Your task to perform on an android device: Open ESPN.com Image 0: 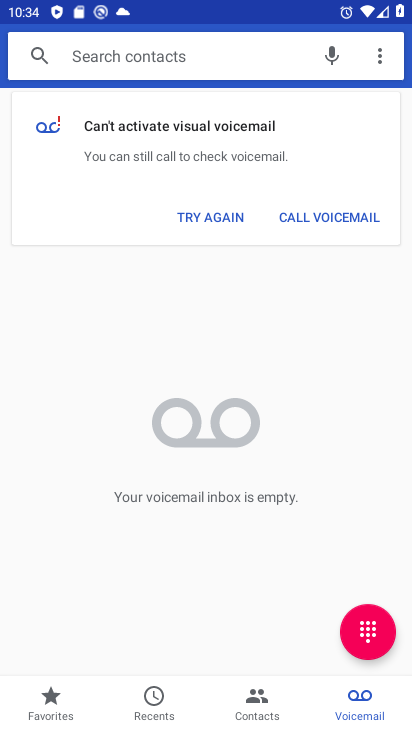
Step 0: press home button
Your task to perform on an android device: Open ESPN.com Image 1: 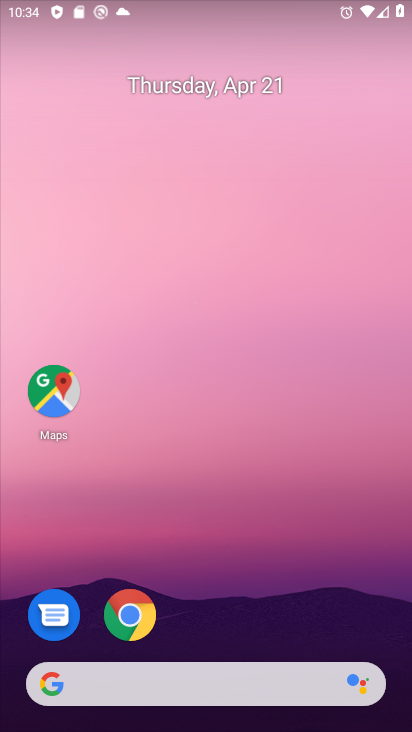
Step 1: drag from (4, 280) to (400, 299)
Your task to perform on an android device: Open ESPN.com Image 2: 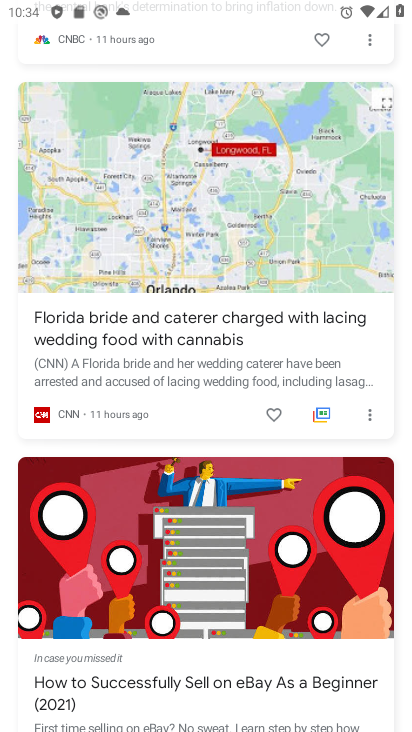
Step 2: press back button
Your task to perform on an android device: Open ESPN.com Image 3: 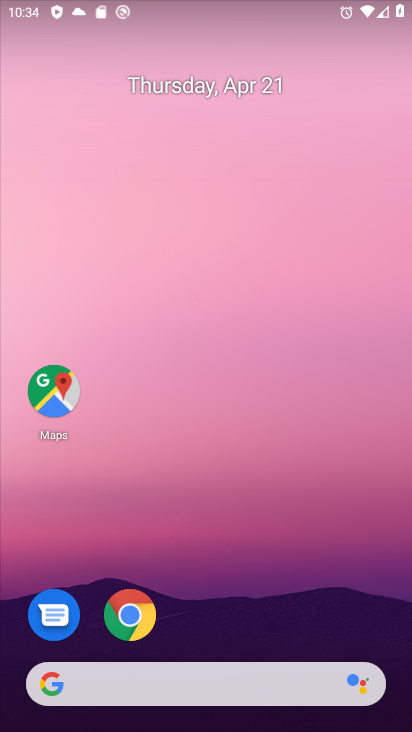
Step 3: click (130, 607)
Your task to perform on an android device: Open ESPN.com Image 4: 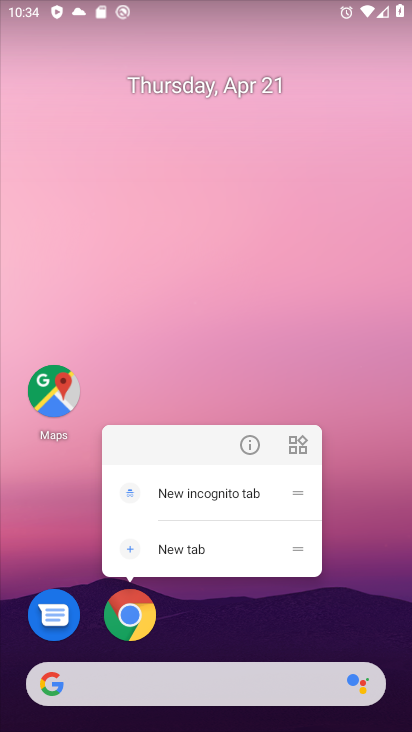
Step 4: click (214, 613)
Your task to perform on an android device: Open ESPN.com Image 5: 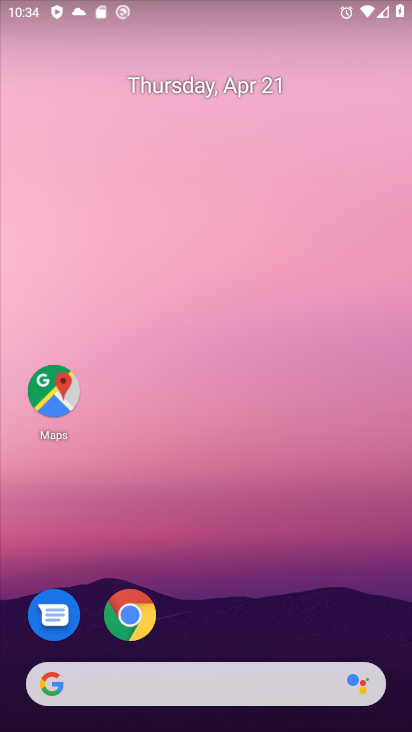
Step 5: drag from (303, 632) to (310, 133)
Your task to perform on an android device: Open ESPN.com Image 6: 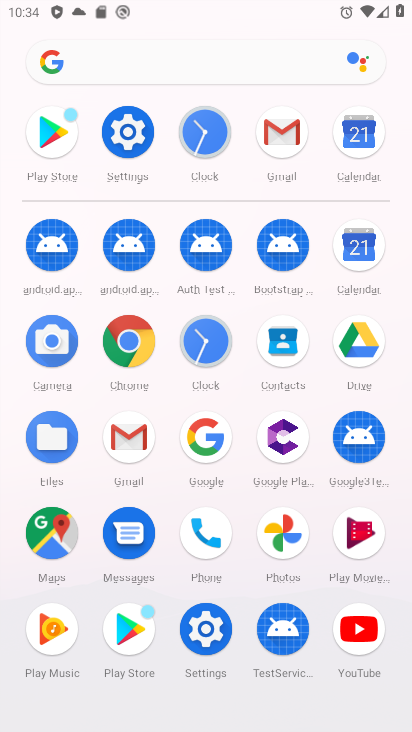
Step 6: click (127, 333)
Your task to perform on an android device: Open ESPN.com Image 7: 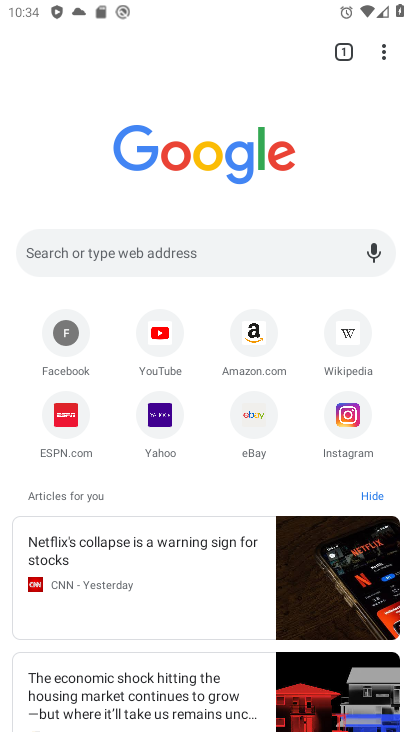
Step 7: click (65, 411)
Your task to perform on an android device: Open ESPN.com Image 8: 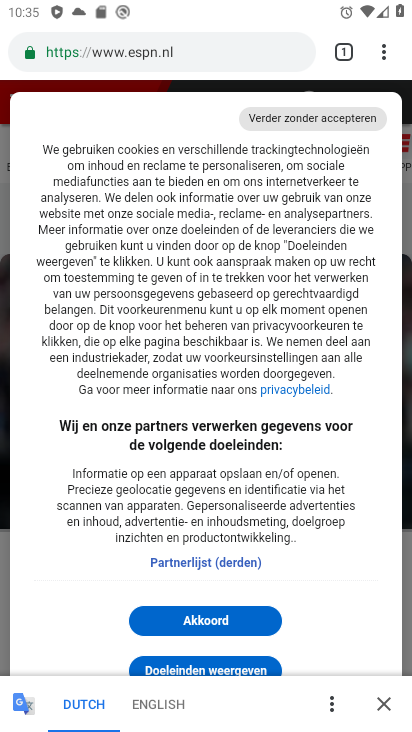
Step 8: click (380, 700)
Your task to perform on an android device: Open ESPN.com Image 9: 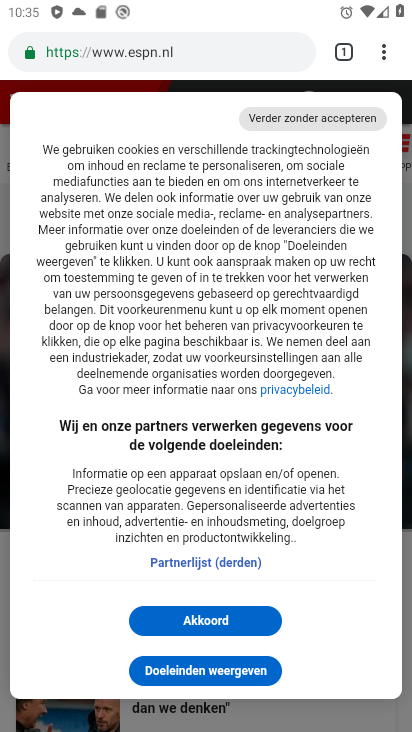
Step 9: click (214, 620)
Your task to perform on an android device: Open ESPN.com Image 10: 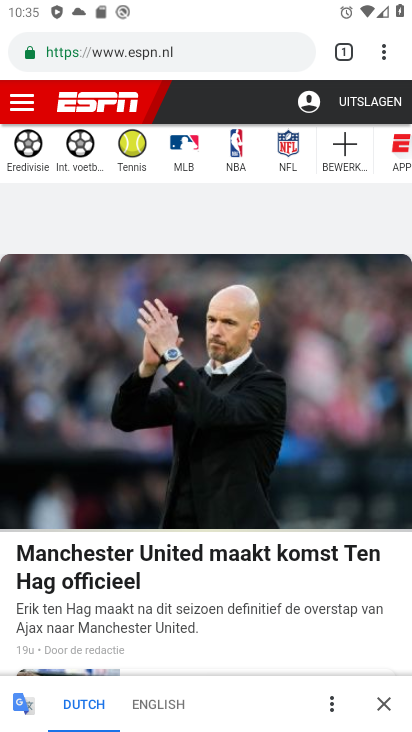
Step 10: task complete